Your task to perform on an android device: find snoozed emails in the gmail app Image 0: 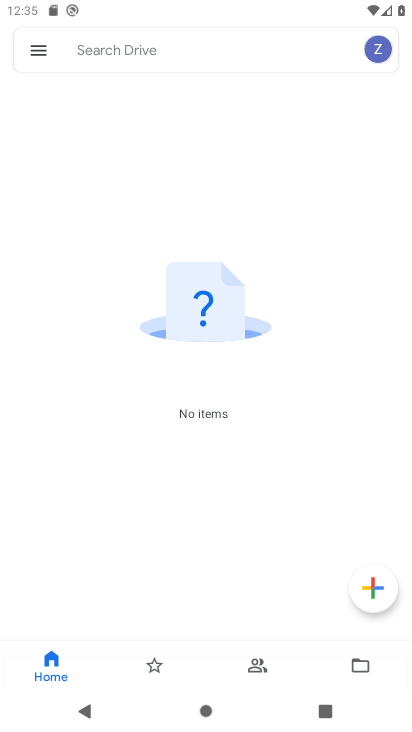
Step 0: press home button
Your task to perform on an android device: find snoozed emails in the gmail app Image 1: 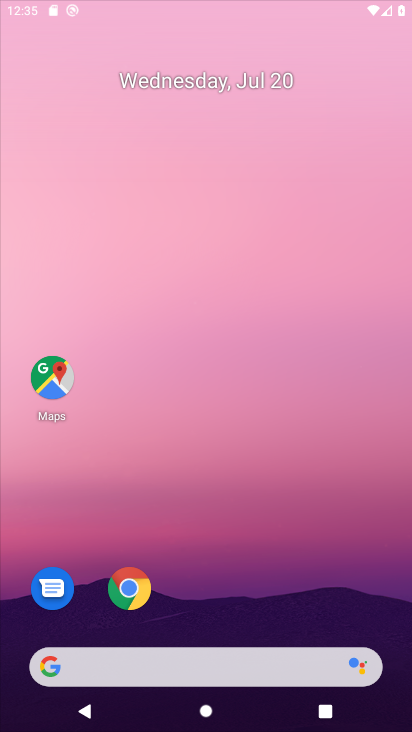
Step 1: drag from (214, 610) to (145, 147)
Your task to perform on an android device: find snoozed emails in the gmail app Image 2: 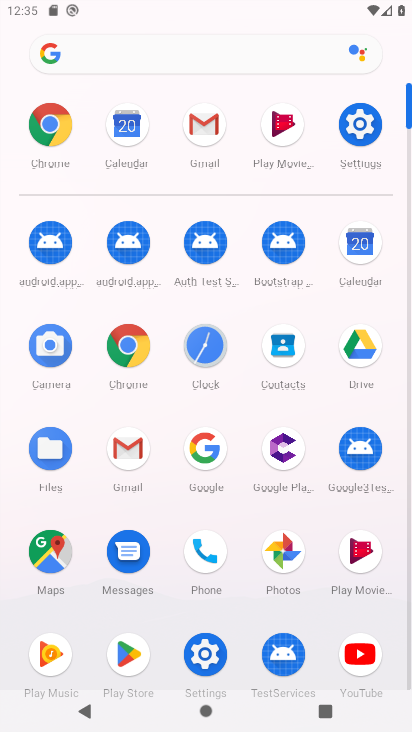
Step 2: click (140, 446)
Your task to perform on an android device: find snoozed emails in the gmail app Image 3: 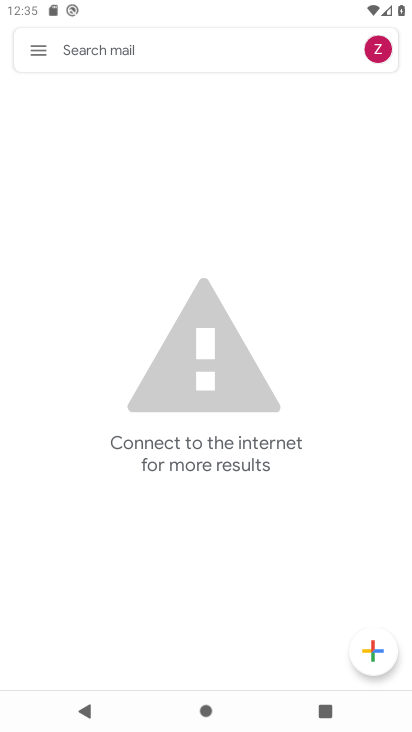
Step 3: click (38, 55)
Your task to perform on an android device: find snoozed emails in the gmail app Image 4: 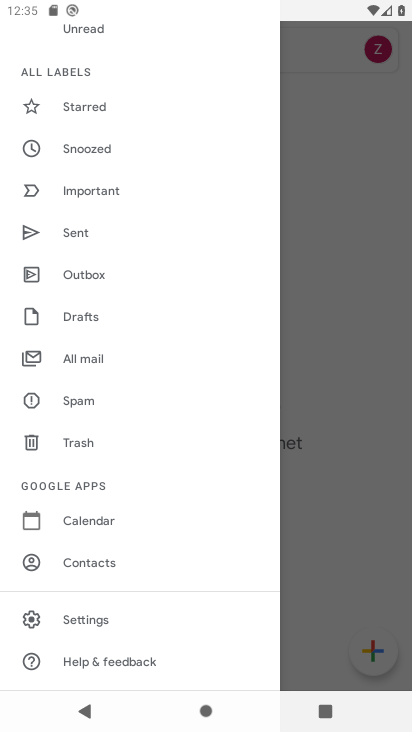
Step 4: click (86, 151)
Your task to perform on an android device: find snoozed emails in the gmail app Image 5: 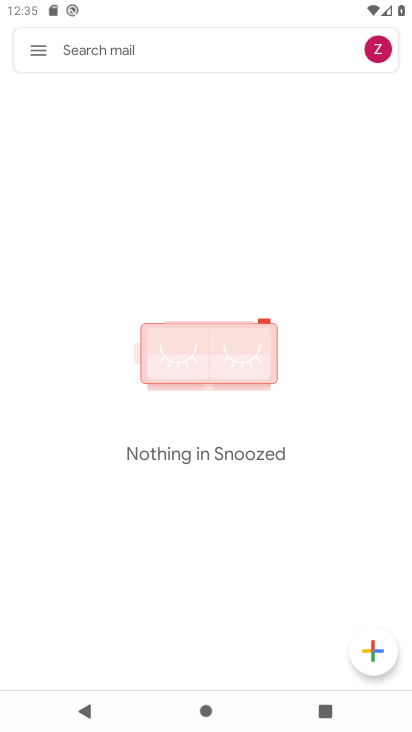
Step 5: task complete